Your task to perform on an android device: Go to Maps Image 0: 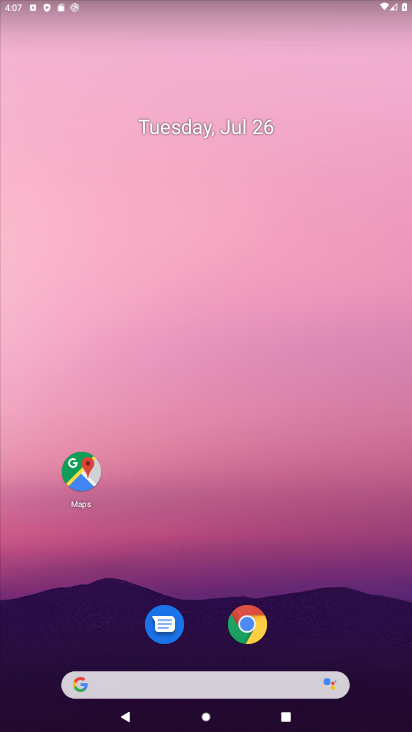
Step 0: drag from (329, 669) to (363, 74)
Your task to perform on an android device: Go to Maps Image 1: 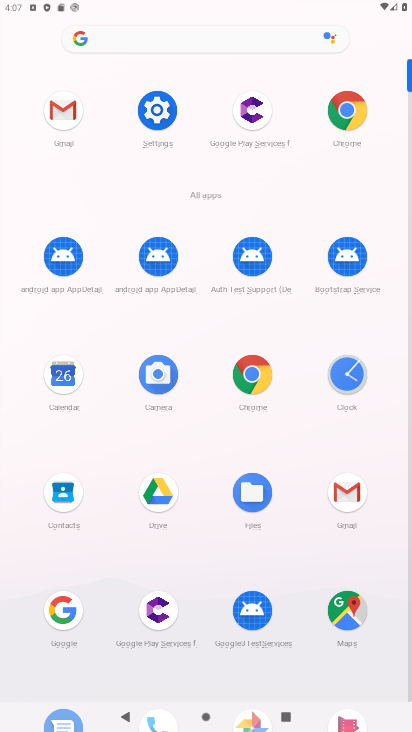
Step 1: click (346, 604)
Your task to perform on an android device: Go to Maps Image 2: 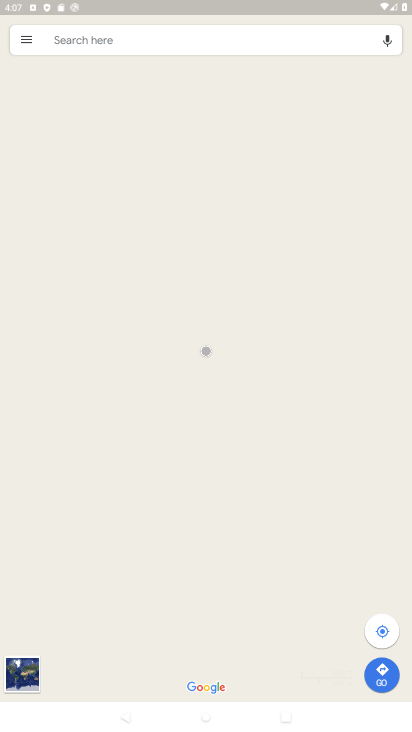
Step 2: task complete